Your task to perform on an android device: install app "VLC for Android" Image 0: 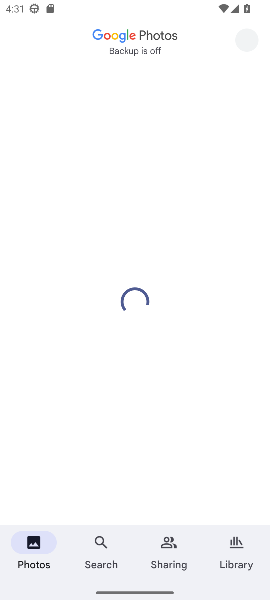
Step 0: press home button
Your task to perform on an android device: install app "VLC for Android" Image 1: 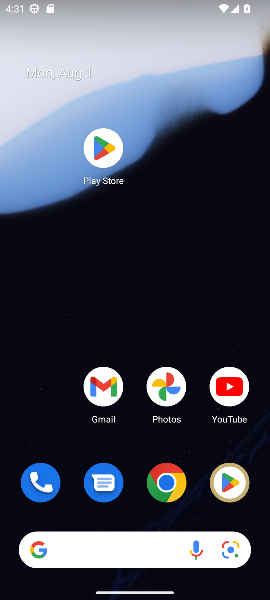
Step 1: click (105, 151)
Your task to perform on an android device: install app "VLC for Android" Image 2: 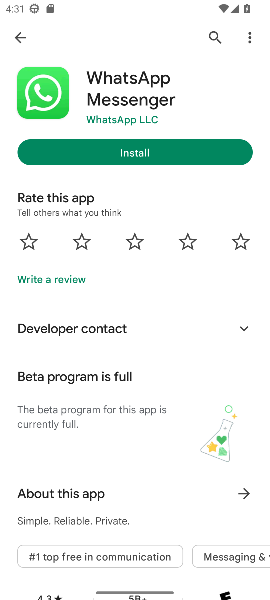
Step 2: click (205, 38)
Your task to perform on an android device: install app "VLC for Android" Image 3: 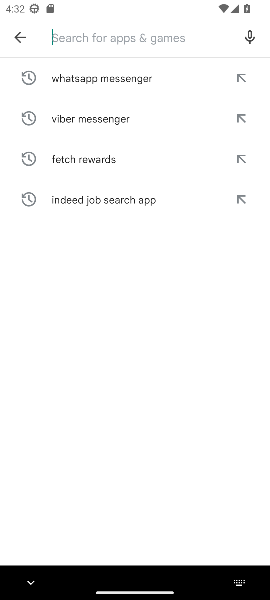
Step 3: type "VLC for Android"
Your task to perform on an android device: install app "VLC for Android" Image 4: 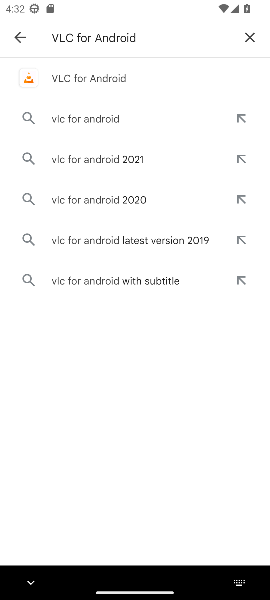
Step 4: click (90, 79)
Your task to perform on an android device: install app "VLC for Android" Image 5: 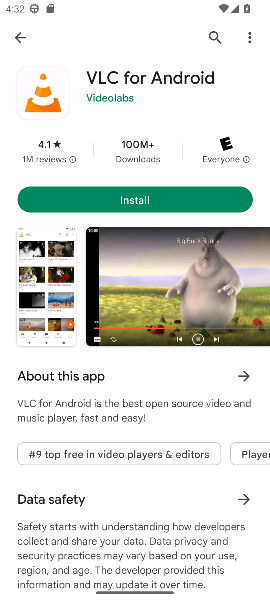
Step 5: click (152, 193)
Your task to perform on an android device: install app "VLC for Android" Image 6: 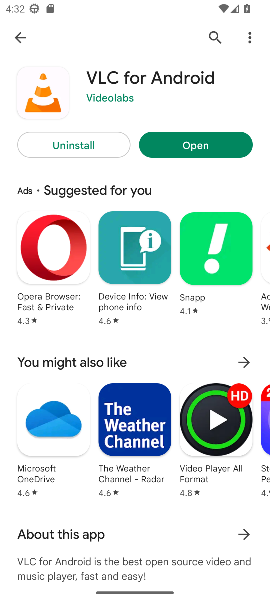
Step 6: task complete